Your task to perform on an android device: turn on sleep mode Image 0: 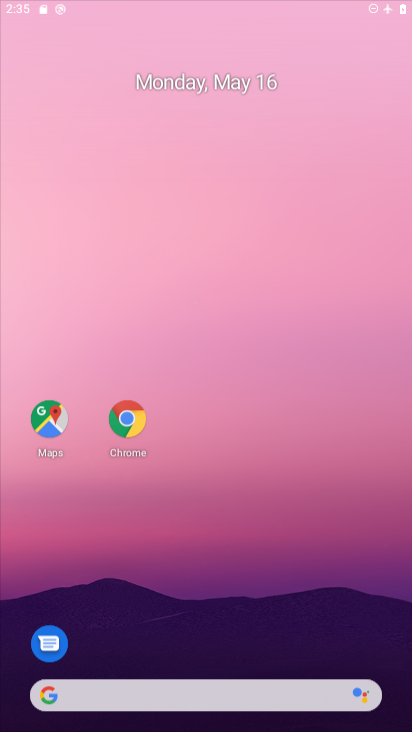
Step 0: click (191, 67)
Your task to perform on an android device: turn on sleep mode Image 1: 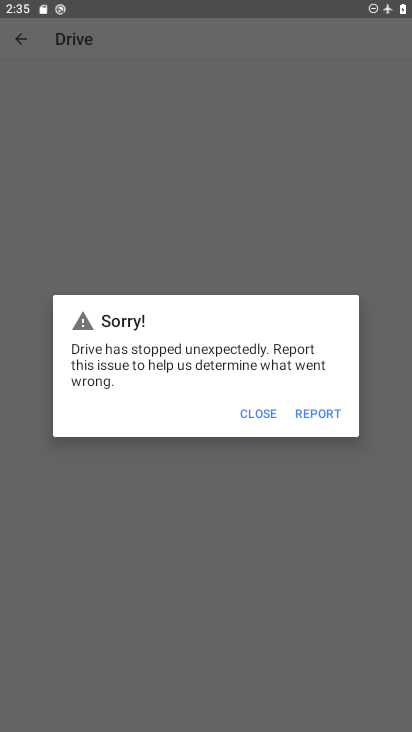
Step 1: click (220, 191)
Your task to perform on an android device: turn on sleep mode Image 2: 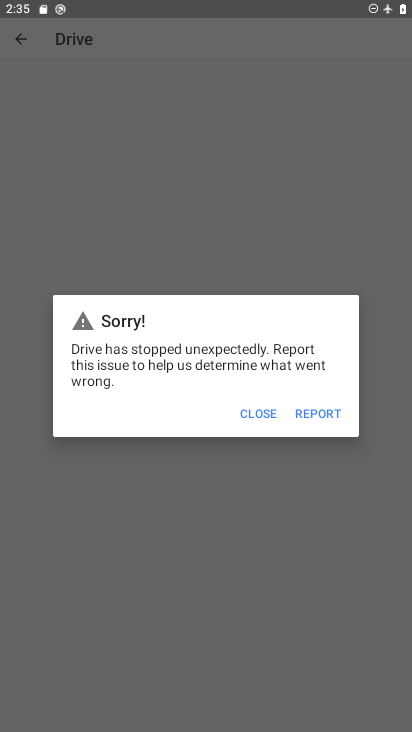
Step 2: press home button
Your task to perform on an android device: turn on sleep mode Image 3: 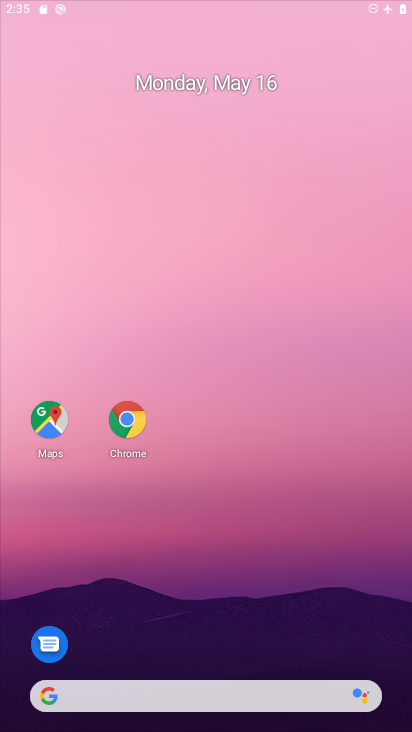
Step 3: drag from (202, 655) to (202, 119)
Your task to perform on an android device: turn on sleep mode Image 4: 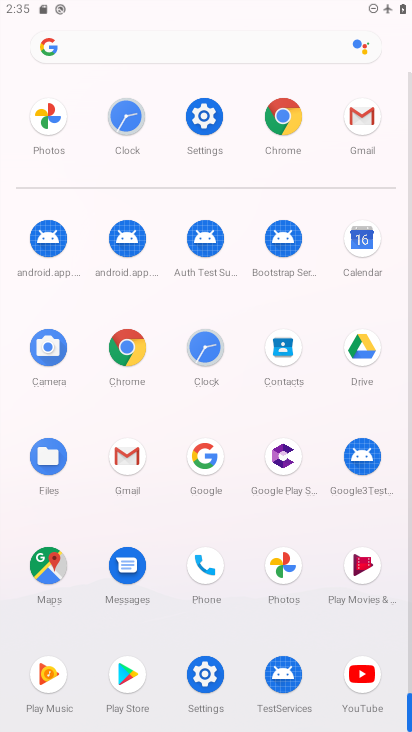
Step 4: click (204, 115)
Your task to perform on an android device: turn on sleep mode Image 5: 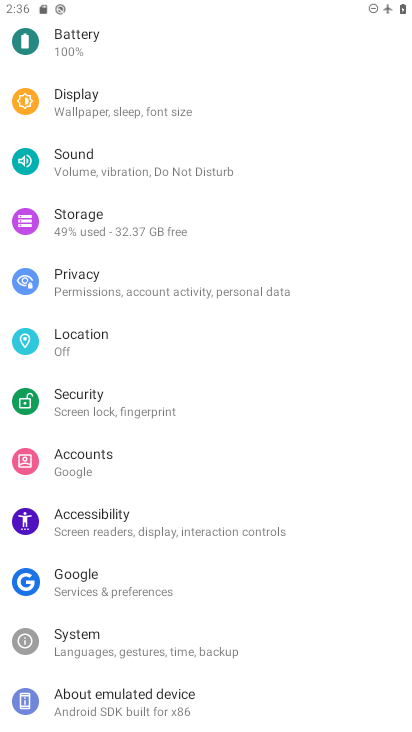
Step 5: drag from (97, 579) to (132, 293)
Your task to perform on an android device: turn on sleep mode Image 6: 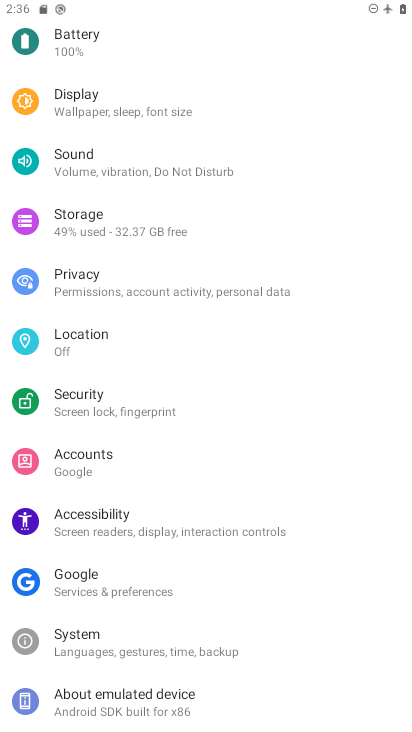
Step 6: click (113, 81)
Your task to perform on an android device: turn on sleep mode Image 7: 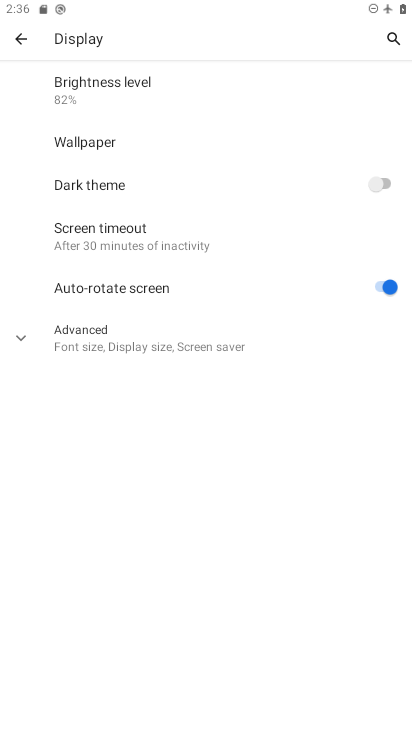
Step 7: click (136, 234)
Your task to perform on an android device: turn on sleep mode Image 8: 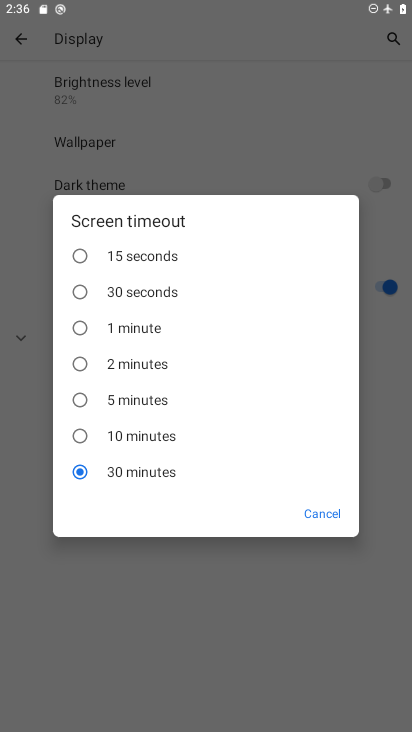
Step 8: task complete